Your task to perform on an android device: Show me productivity apps on the Play Store Image 0: 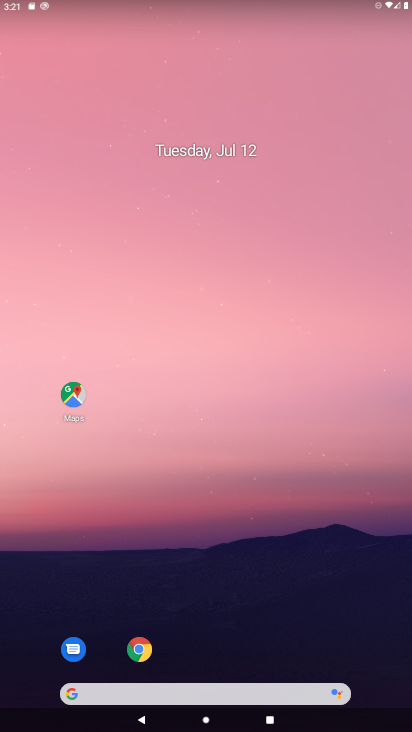
Step 0: drag from (270, 629) to (218, 252)
Your task to perform on an android device: Show me productivity apps on the Play Store Image 1: 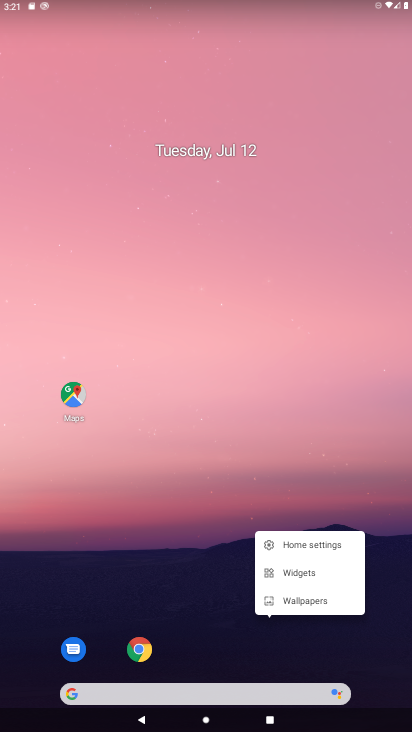
Step 1: click (207, 301)
Your task to perform on an android device: Show me productivity apps on the Play Store Image 2: 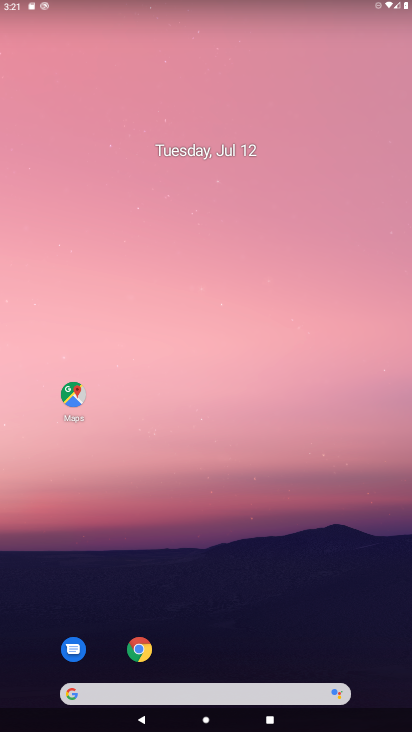
Step 2: drag from (225, 602) to (204, 144)
Your task to perform on an android device: Show me productivity apps on the Play Store Image 3: 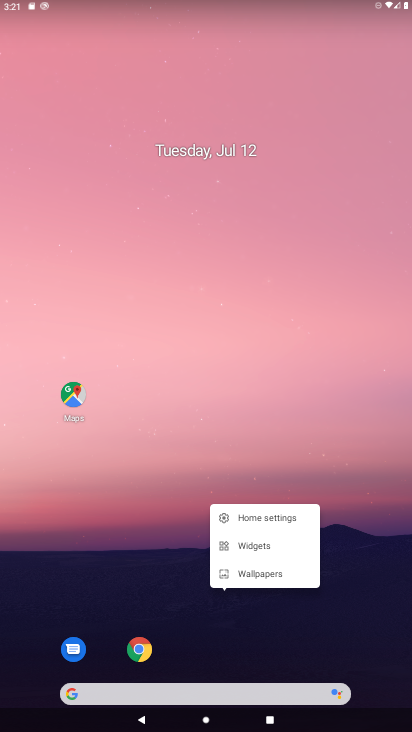
Step 3: click (187, 251)
Your task to perform on an android device: Show me productivity apps on the Play Store Image 4: 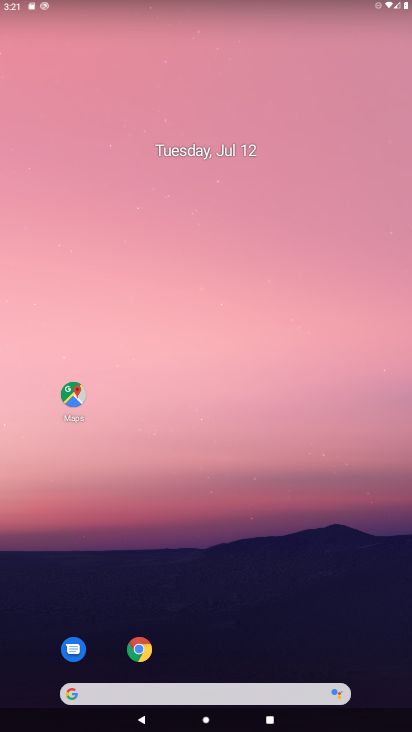
Step 4: drag from (237, 611) to (217, 217)
Your task to perform on an android device: Show me productivity apps on the Play Store Image 5: 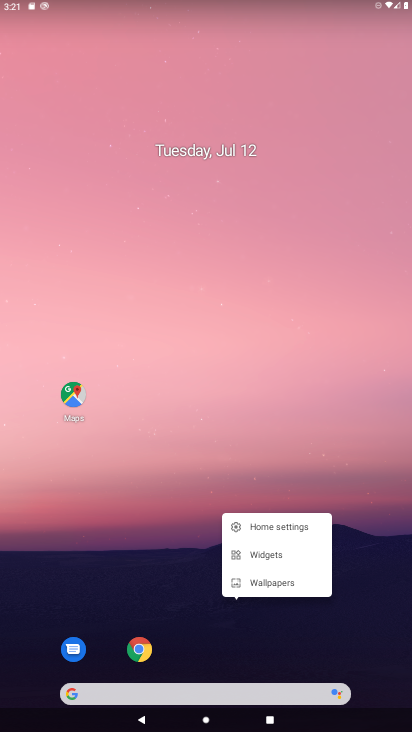
Step 5: click (217, 300)
Your task to perform on an android device: Show me productivity apps on the Play Store Image 6: 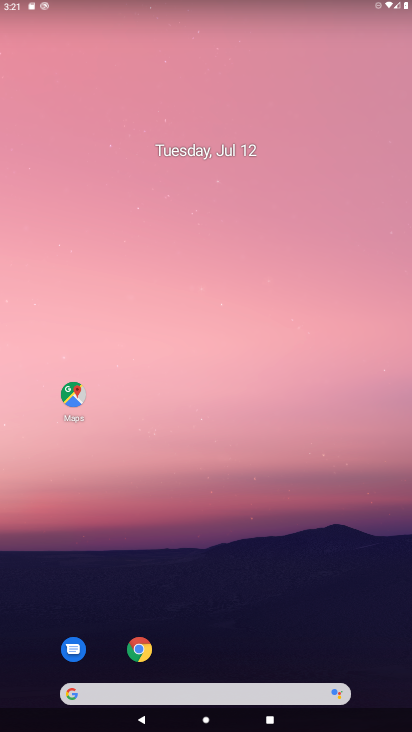
Step 6: drag from (233, 594) to (241, 242)
Your task to perform on an android device: Show me productivity apps on the Play Store Image 7: 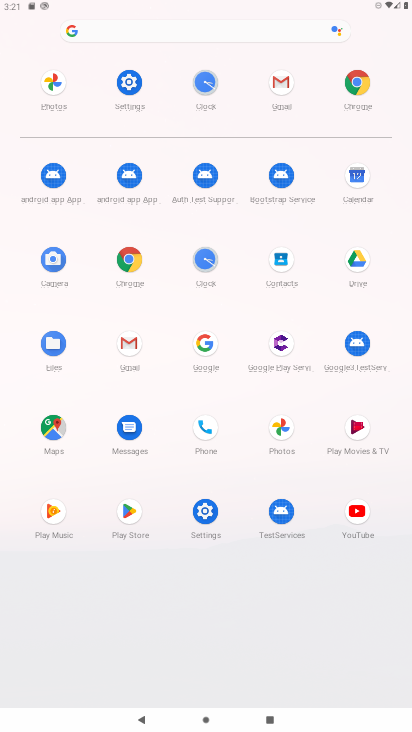
Step 7: click (112, 88)
Your task to perform on an android device: Show me productivity apps on the Play Store Image 8: 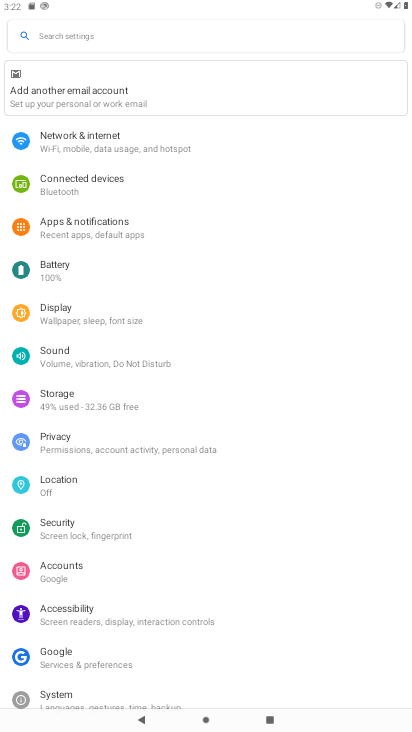
Step 8: press home button
Your task to perform on an android device: Show me productivity apps on the Play Store Image 9: 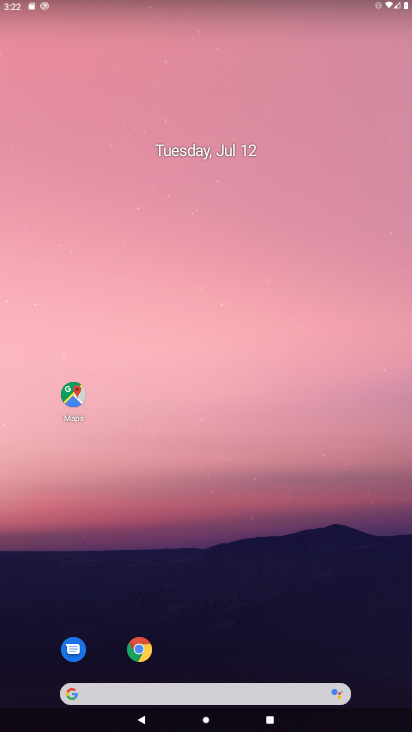
Step 9: drag from (284, 644) to (224, 43)
Your task to perform on an android device: Show me productivity apps on the Play Store Image 10: 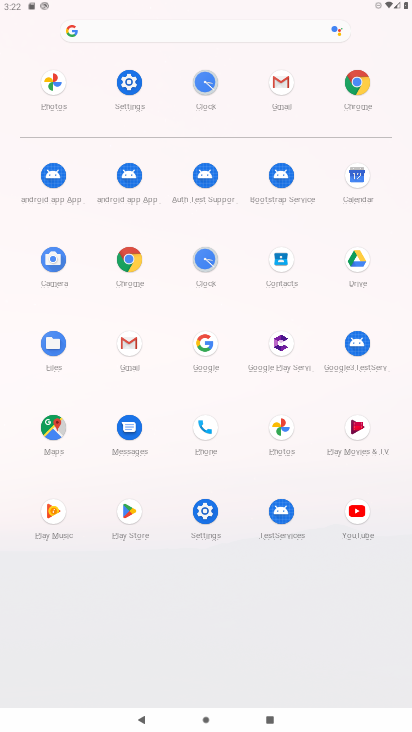
Step 10: click (130, 536)
Your task to perform on an android device: Show me productivity apps on the Play Store Image 11: 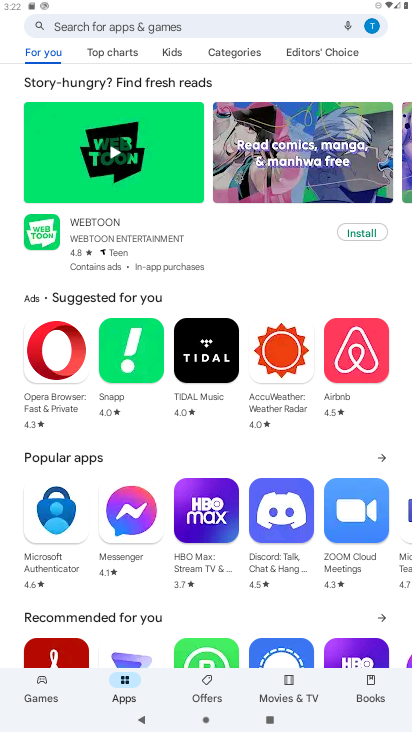
Step 11: click (129, 44)
Your task to perform on an android device: Show me productivity apps on the Play Store Image 12: 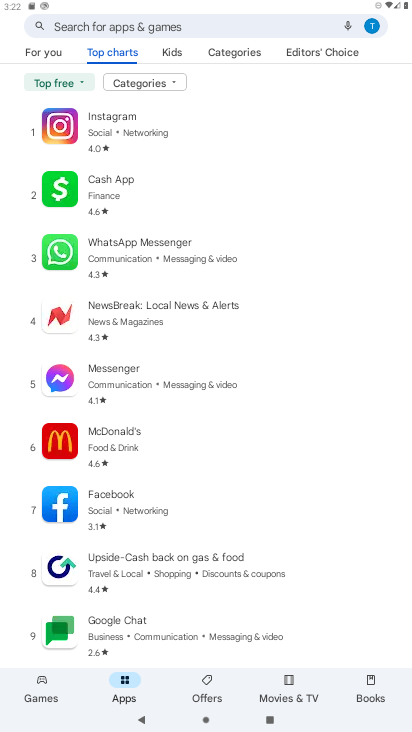
Step 12: click (166, 82)
Your task to perform on an android device: Show me productivity apps on the Play Store Image 13: 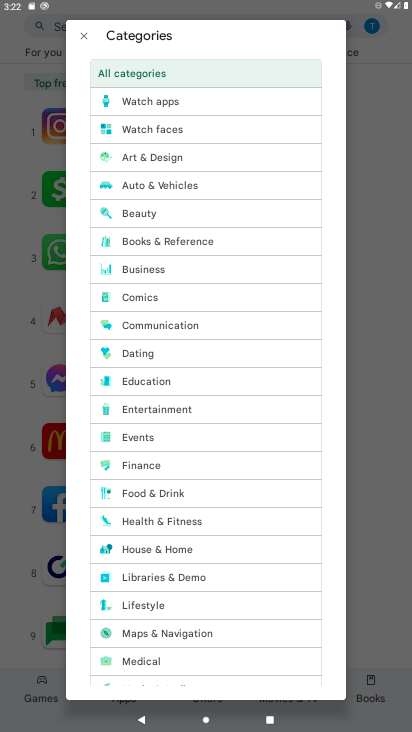
Step 13: drag from (159, 653) to (147, 429)
Your task to perform on an android device: Show me productivity apps on the Play Store Image 14: 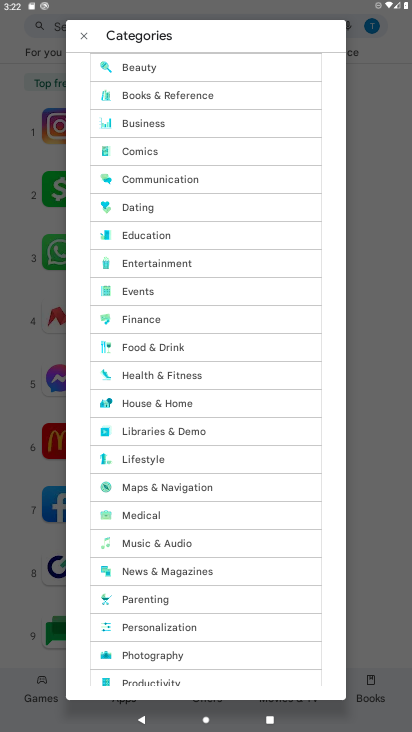
Step 14: click (154, 680)
Your task to perform on an android device: Show me productivity apps on the Play Store Image 15: 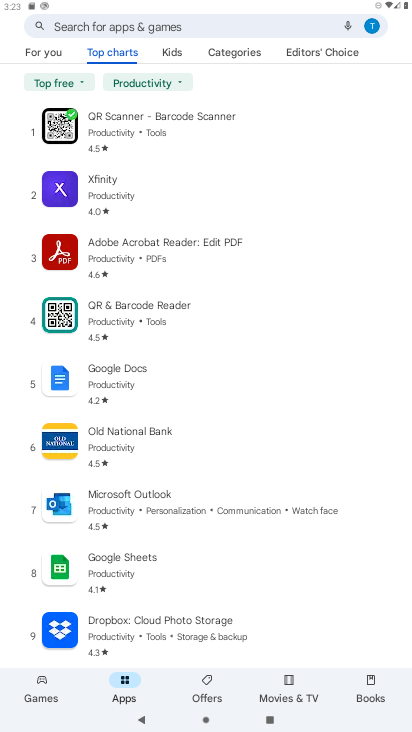
Step 15: task complete